Your task to perform on an android device: add a contact Image 0: 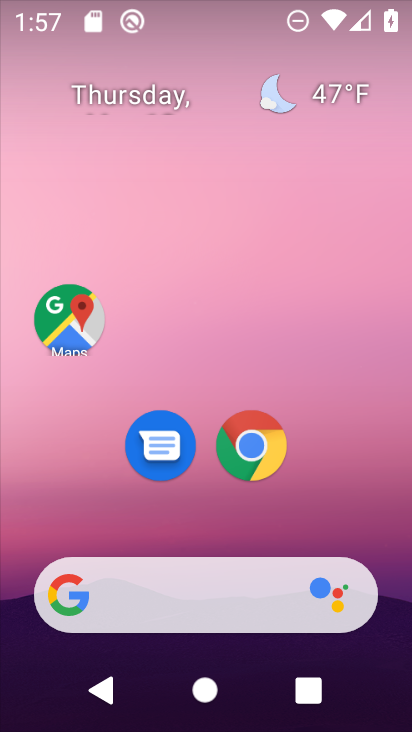
Step 0: drag from (207, 509) to (204, 216)
Your task to perform on an android device: add a contact Image 1: 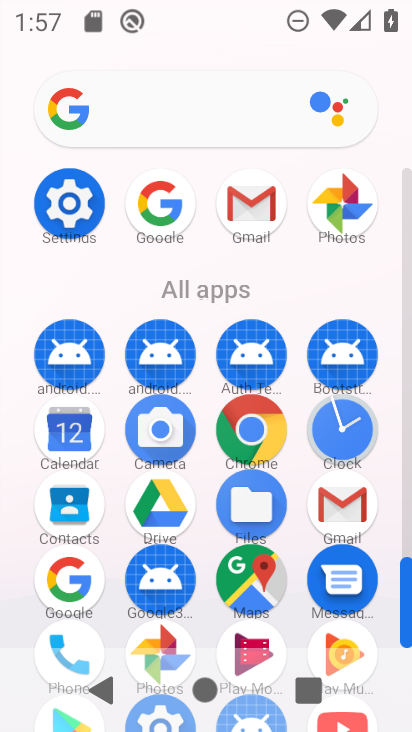
Step 1: click (75, 501)
Your task to perform on an android device: add a contact Image 2: 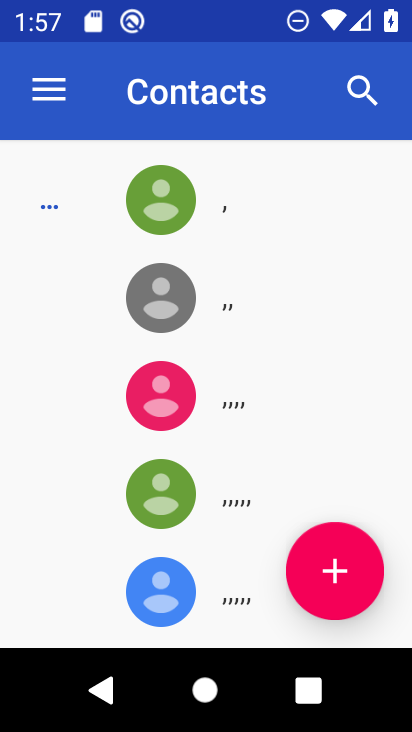
Step 2: click (318, 589)
Your task to perform on an android device: add a contact Image 3: 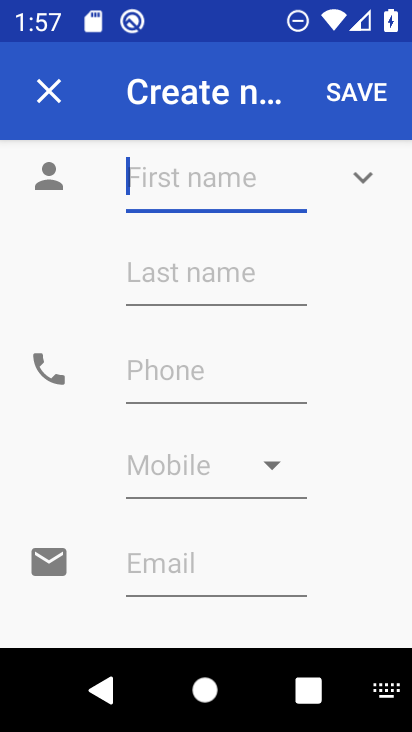
Step 3: type ""
Your task to perform on an android device: add a contact Image 4: 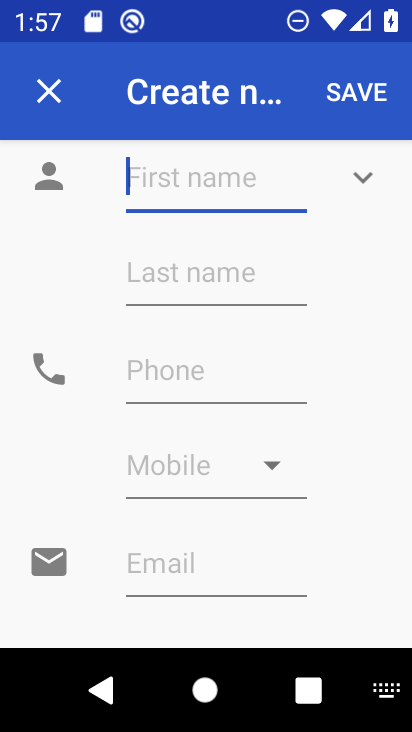
Step 4: type "hgcjyycuyyu"
Your task to perform on an android device: add a contact Image 5: 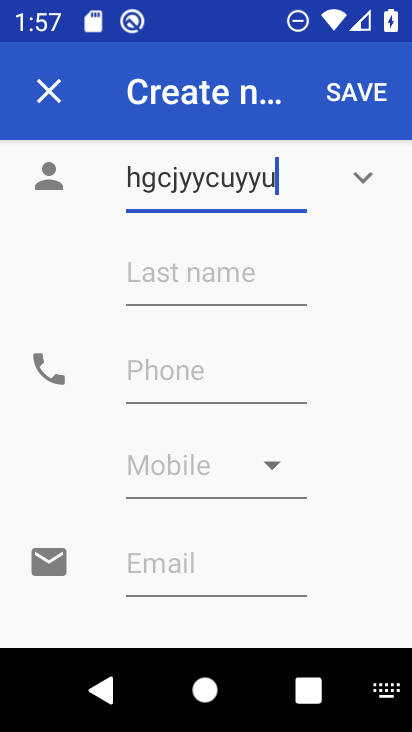
Step 5: click (185, 369)
Your task to perform on an android device: add a contact Image 6: 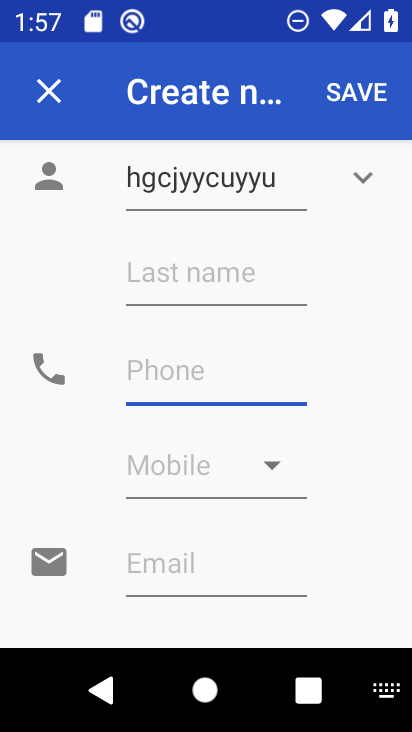
Step 6: type "87566874854"
Your task to perform on an android device: add a contact Image 7: 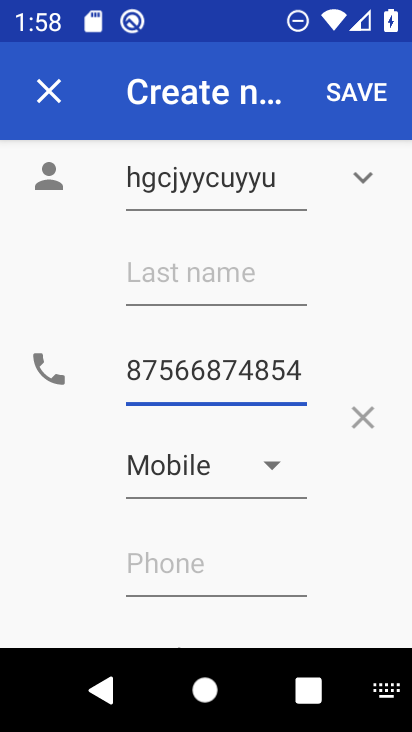
Step 7: click (362, 81)
Your task to perform on an android device: add a contact Image 8: 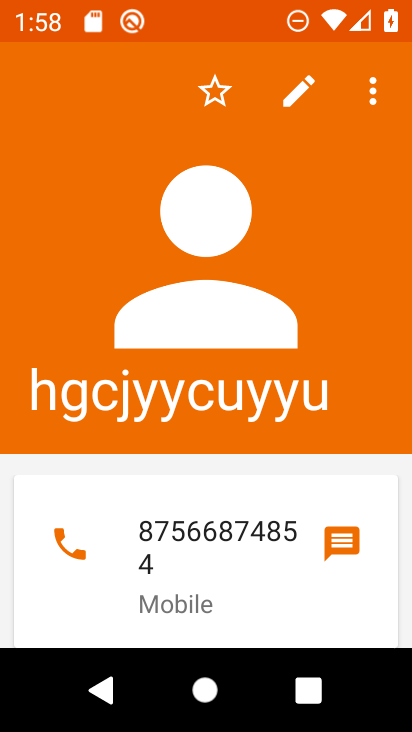
Step 8: task complete